Your task to perform on an android device: turn off notifications settings in the gmail app Image 0: 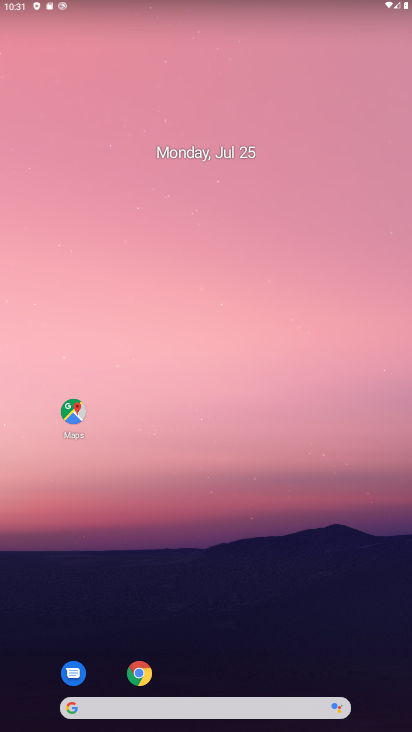
Step 0: press home button
Your task to perform on an android device: turn off notifications settings in the gmail app Image 1: 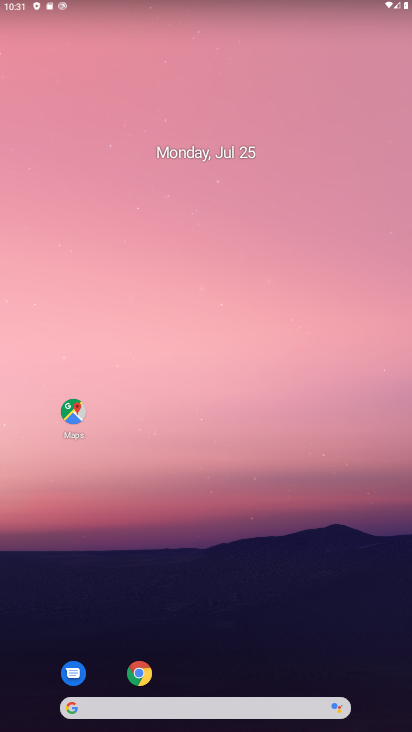
Step 1: drag from (226, 678) to (209, 118)
Your task to perform on an android device: turn off notifications settings in the gmail app Image 2: 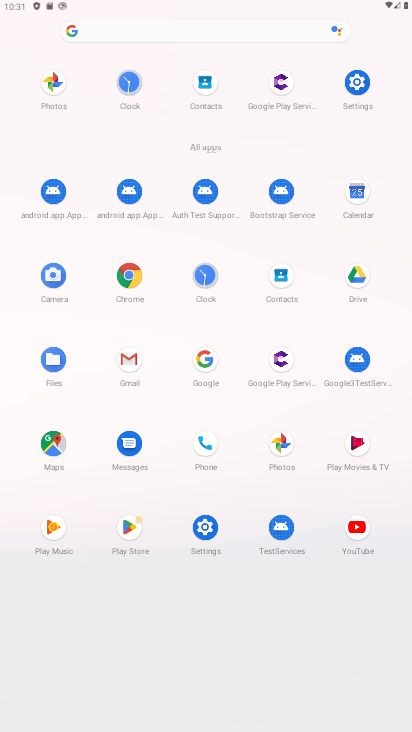
Step 2: click (127, 354)
Your task to perform on an android device: turn off notifications settings in the gmail app Image 3: 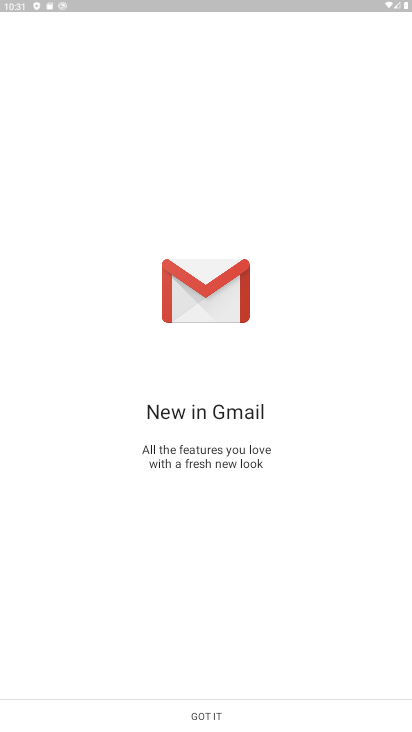
Step 3: click (214, 714)
Your task to perform on an android device: turn off notifications settings in the gmail app Image 4: 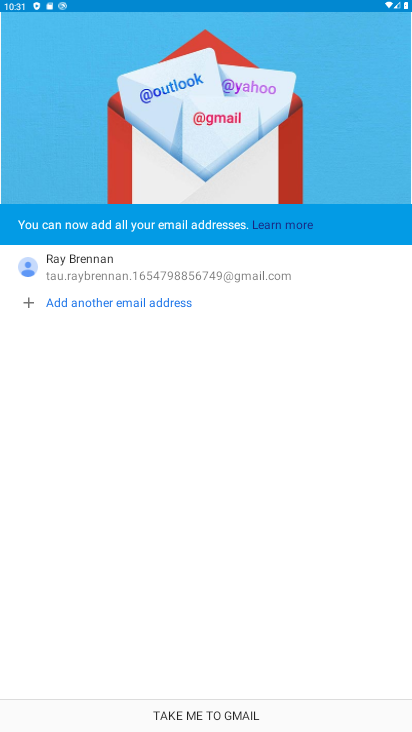
Step 4: click (201, 712)
Your task to perform on an android device: turn off notifications settings in the gmail app Image 5: 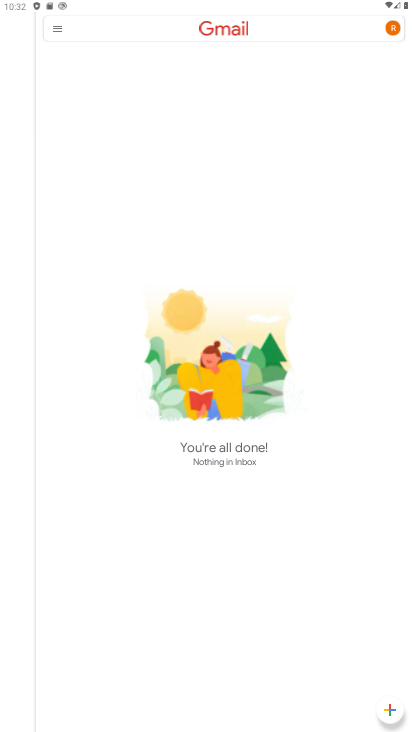
Step 5: click (57, 23)
Your task to perform on an android device: turn off notifications settings in the gmail app Image 6: 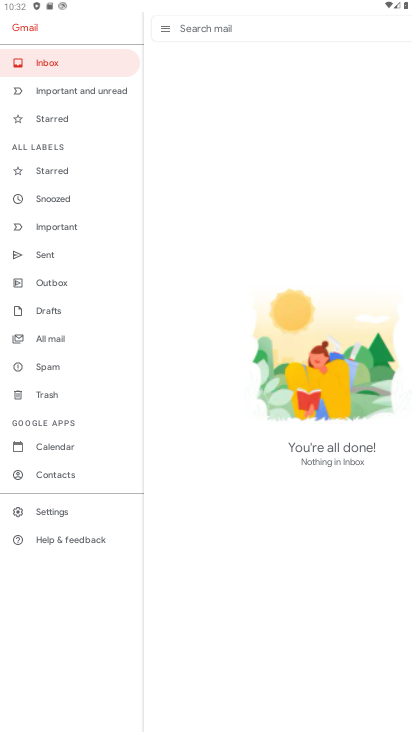
Step 6: click (70, 508)
Your task to perform on an android device: turn off notifications settings in the gmail app Image 7: 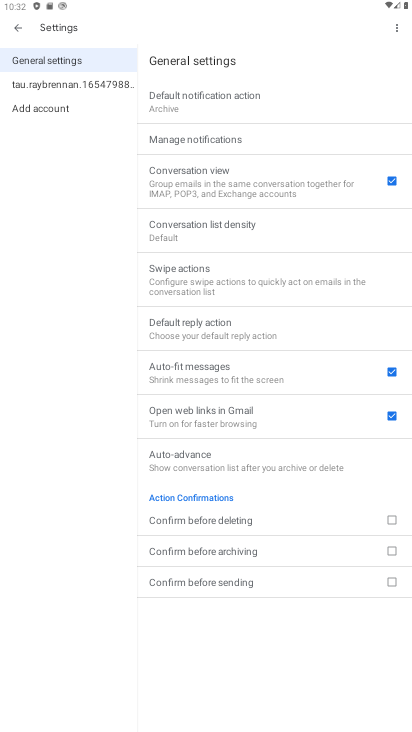
Step 7: click (248, 134)
Your task to perform on an android device: turn off notifications settings in the gmail app Image 8: 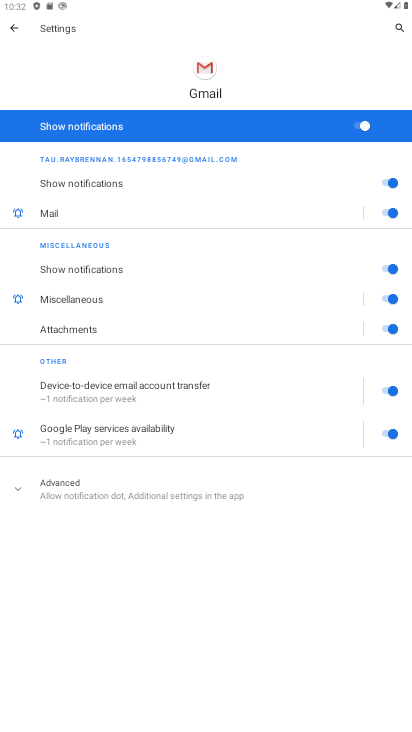
Step 8: click (359, 120)
Your task to perform on an android device: turn off notifications settings in the gmail app Image 9: 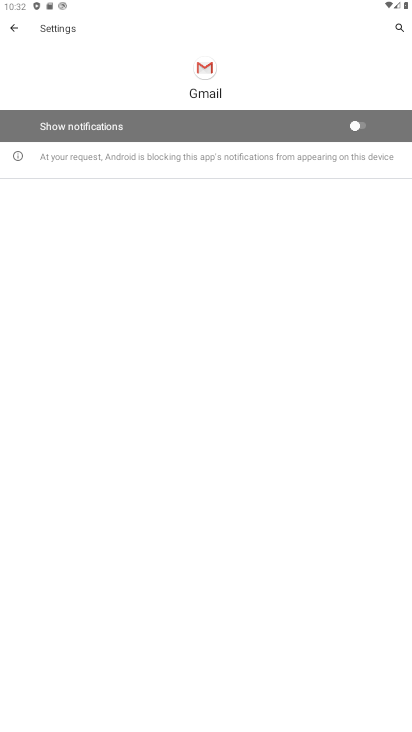
Step 9: task complete